Your task to perform on an android device: Go to Amazon Image 0: 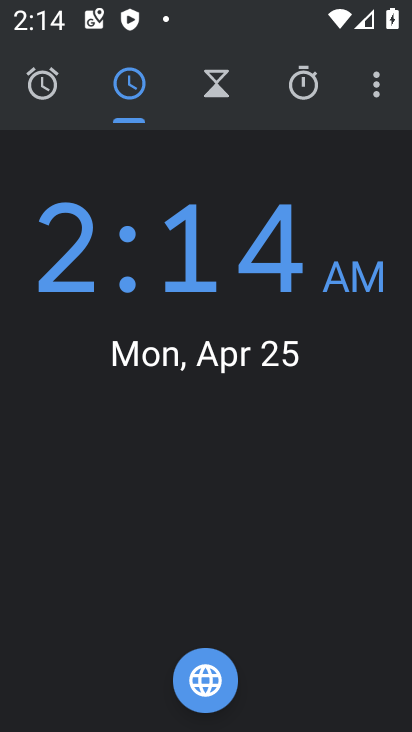
Step 0: press home button
Your task to perform on an android device: Go to Amazon Image 1: 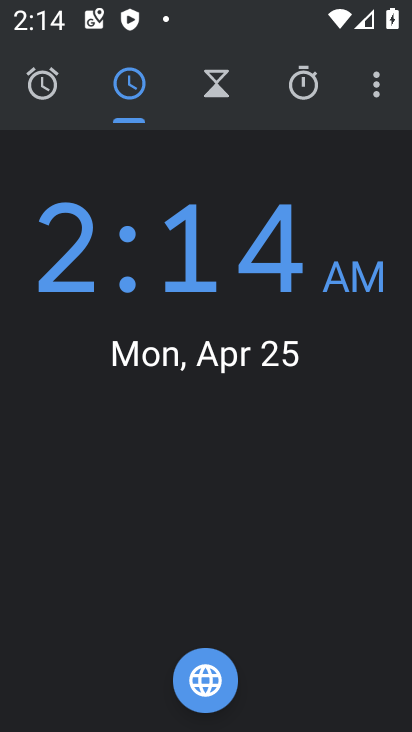
Step 1: press back button
Your task to perform on an android device: Go to Amazon Image 2: 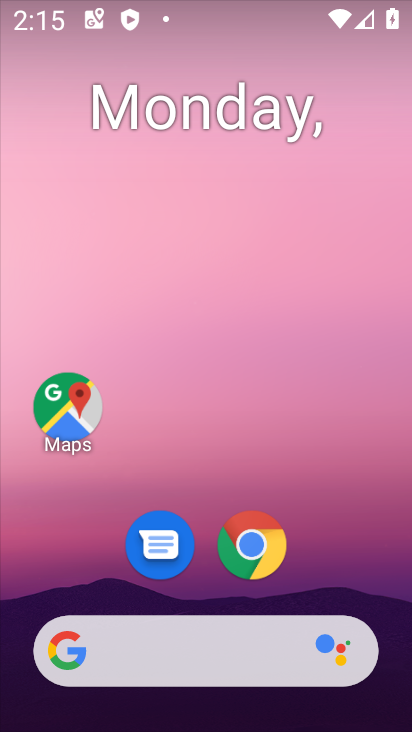
Step 2: click (252, 530)
Your task to perform on an android device: Go to Amazon Image 3: 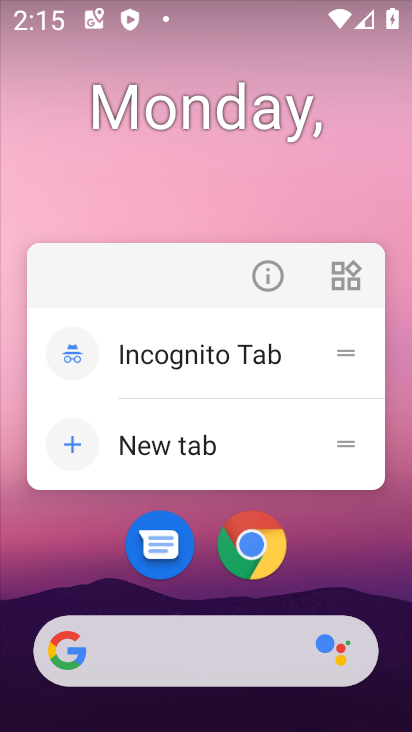
Step 3: click (256, 540)
Your task to perform on an android device: Go to Amazon Image 4: 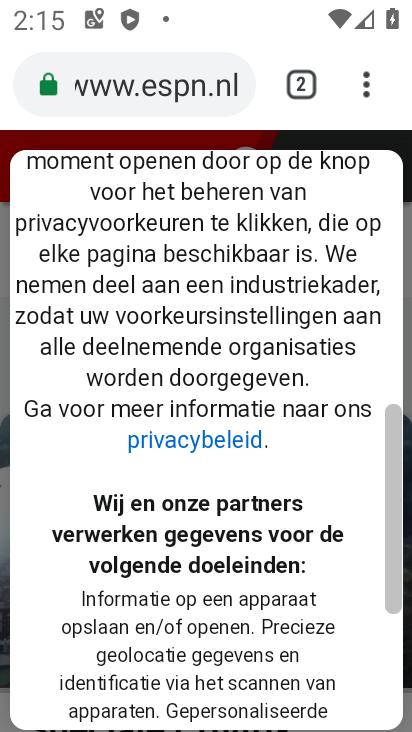
Step 4: click (299, 85)
Your task to perform on an android device: Go to Amazon Image 5: 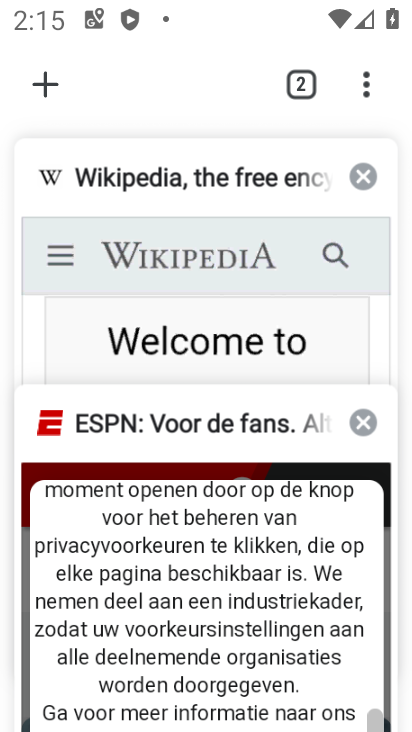
Step 5: click (48, 80)
Your task to perform on an android device: Go to Amazon Image 6: 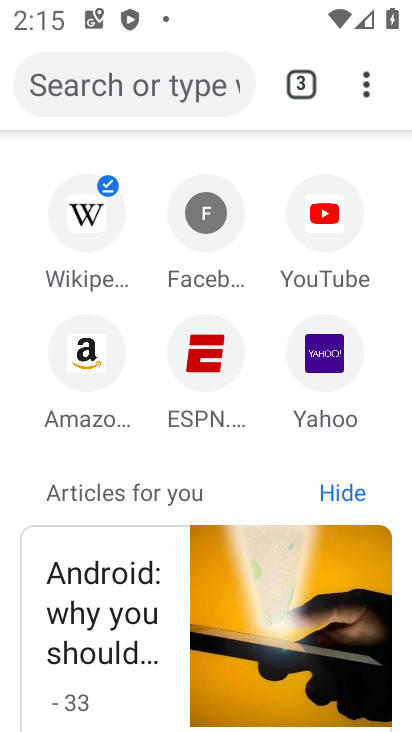
Step 6: click (83, 352)
Your task to perform on an android device: Go to Amazon Image 7: 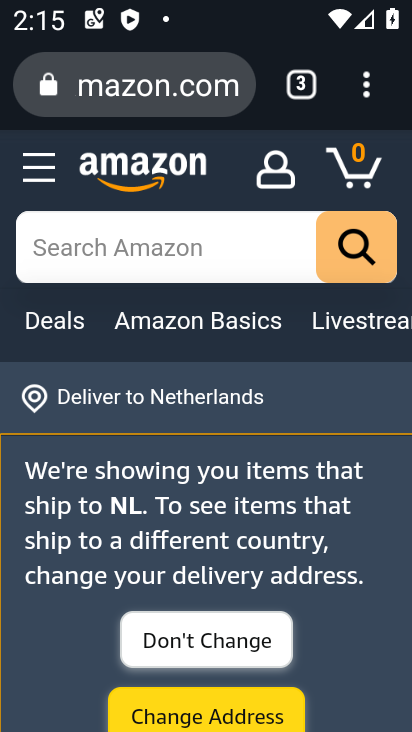
Step 7: task complete